Your task to perform on an android device: turn off picture-in-picture Image 0: 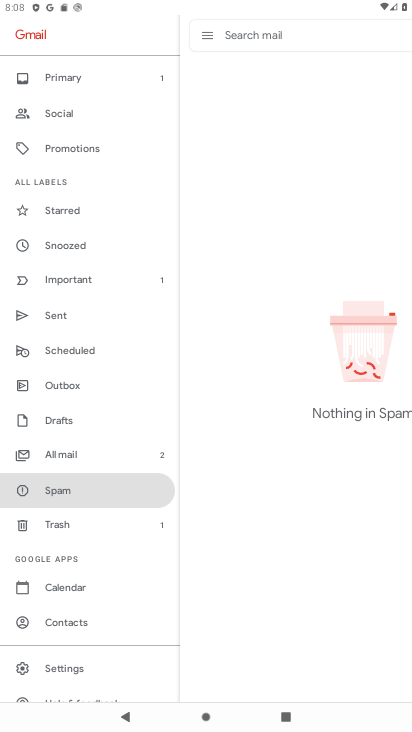
Step 0: press home button
Your task to perform on an android device: turn off picture-in-picture Image 1: 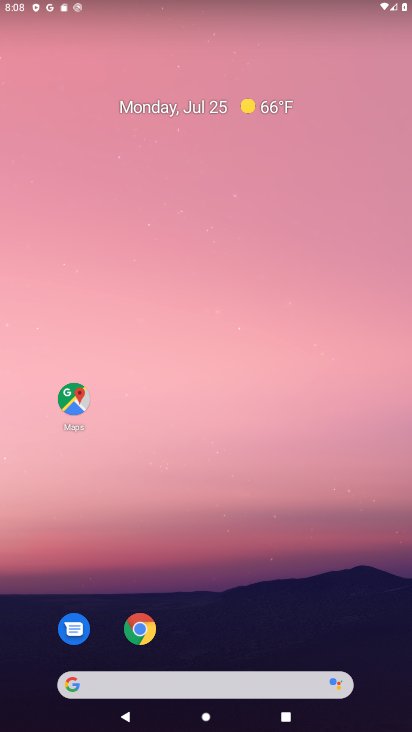
Step 1: click (133, 627)
Your task to perform on an android device: turn off picture-in-picture Image 2: 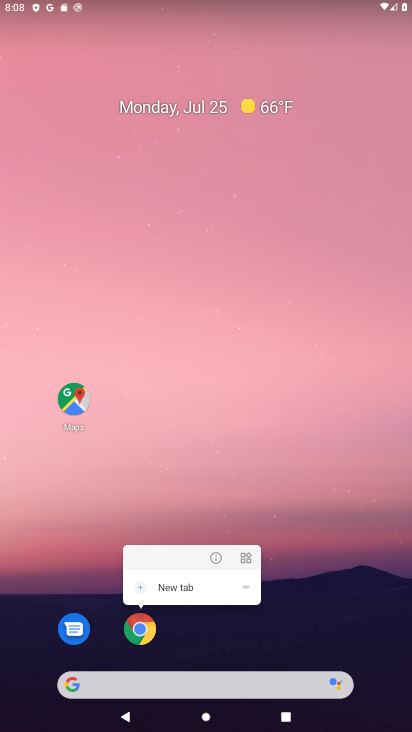
Step 2: click (207, 555)
Your task to perform on an android device: turn off picture-in-picture Image 3: 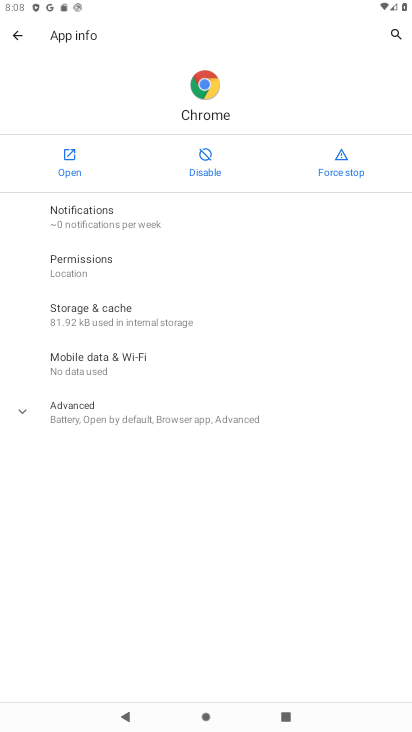
Step 3: click (43, 408)
Your task to perform on an android device: turn off picture-in-picture Image 4: 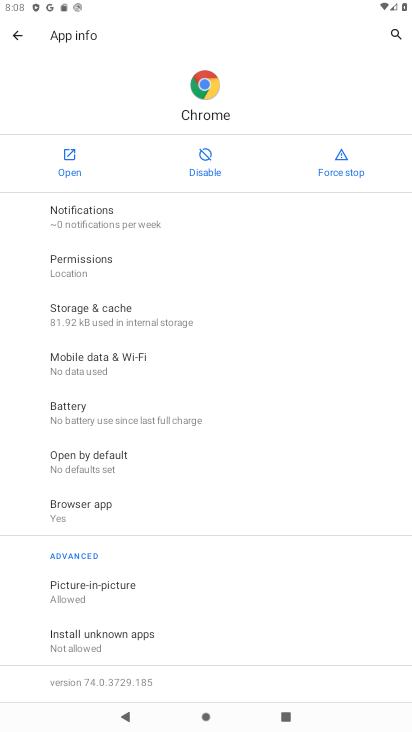
Step 4: click (111, 595)
Your task to perform on an android device: turn off picture-in-picture Image 5: 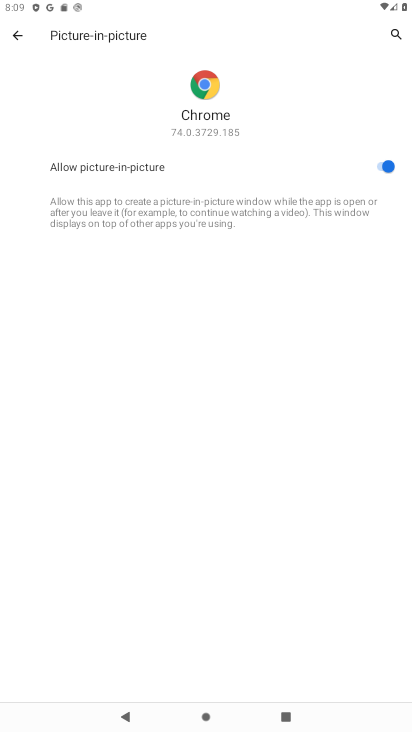
Step 5: click (377, 164)
Your task to perform on an android device: turn off picture-in-picture Image 6: 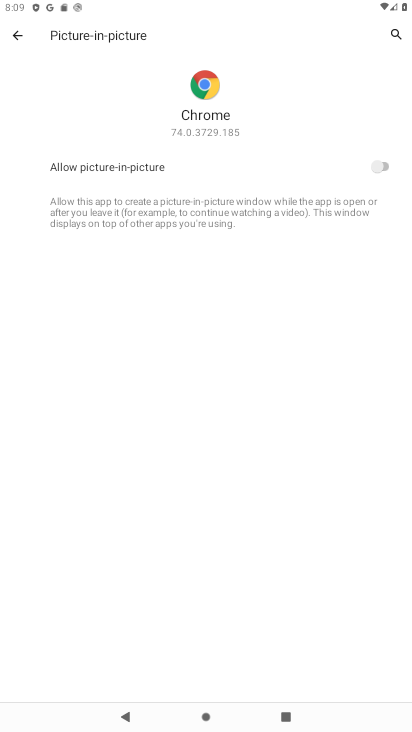
Step 6: task complete